Your task to perform on an android device: Check the news Image 0: 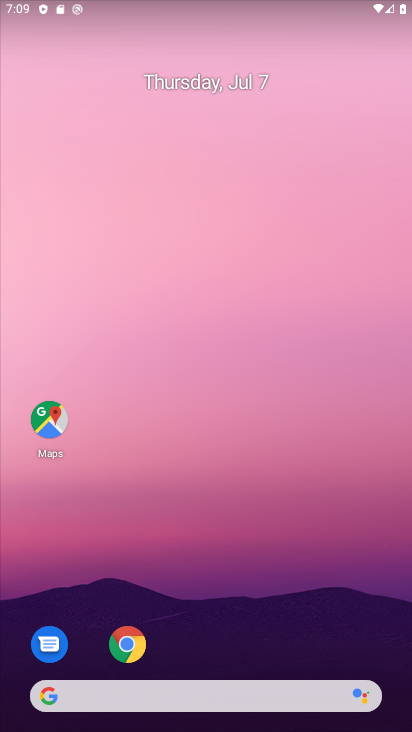
Step 0: drag from (270, 607) to (257, 382)
Your task to perform on an android device: Check the news Image 1: 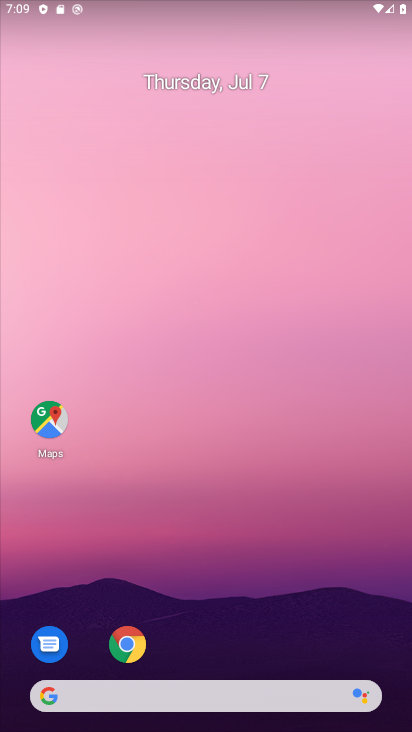
Step 1: drag from (281, 62) to (192, 73)
Your task to perform on an android device: Check the news Image 2: 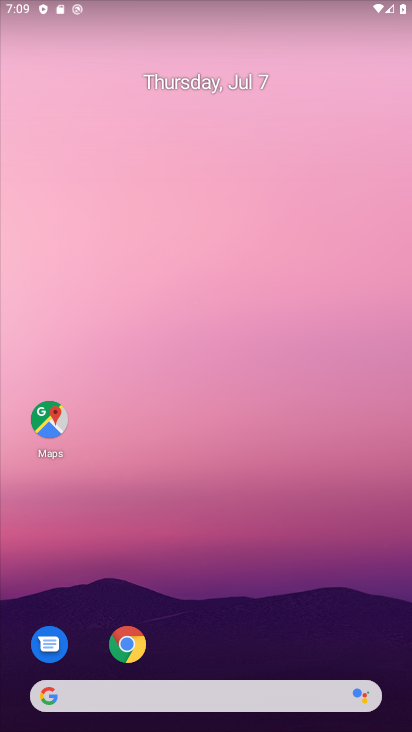
Step 2: drag from (228, 658) to (299, 140)
Your task to perform on an android device: Check the news Image 3: 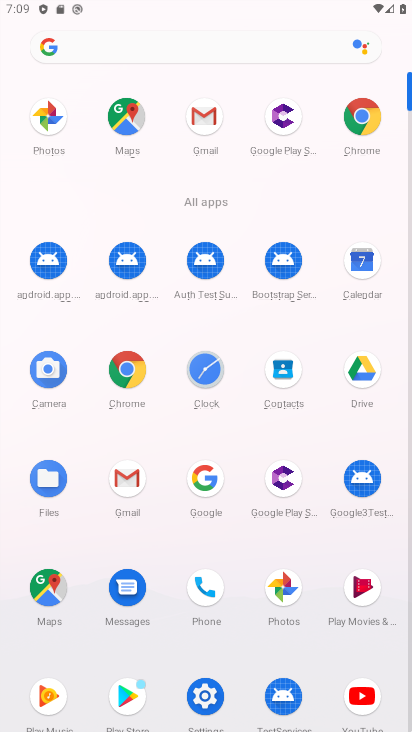
Step 3: click (214, 508)
Your task to perform on an android device: Check the news Image 4: 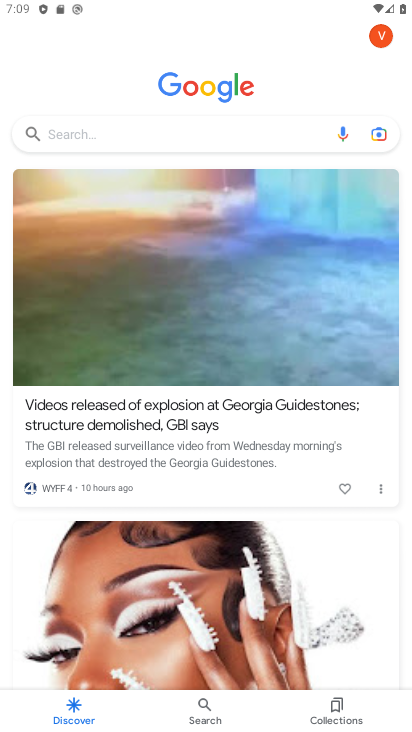
Step 4: click (250, 140)
Your task to perform on an android device: Check the news Image 5: 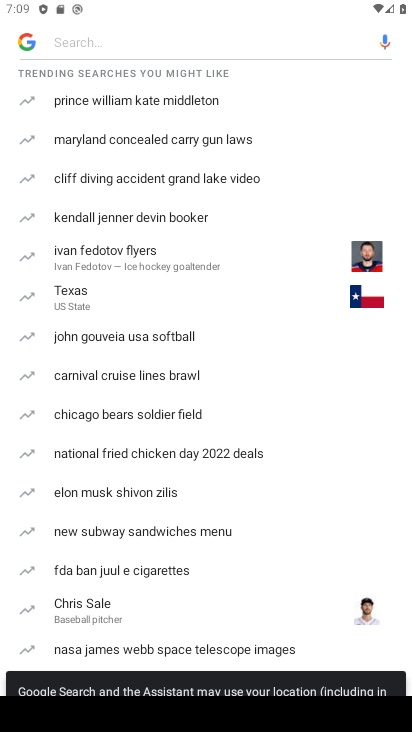
Step 5: type "news"
Your task to perform on an android device: Check the news Image 6: 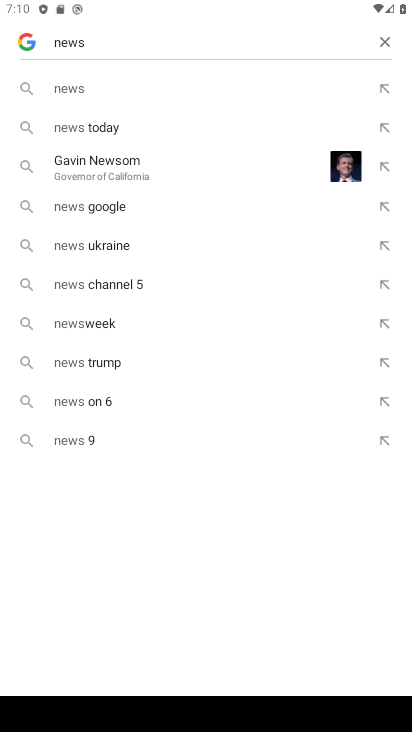
Step 6: click (171, 93)
Your task to perform on an android device: Check the news Image 7: 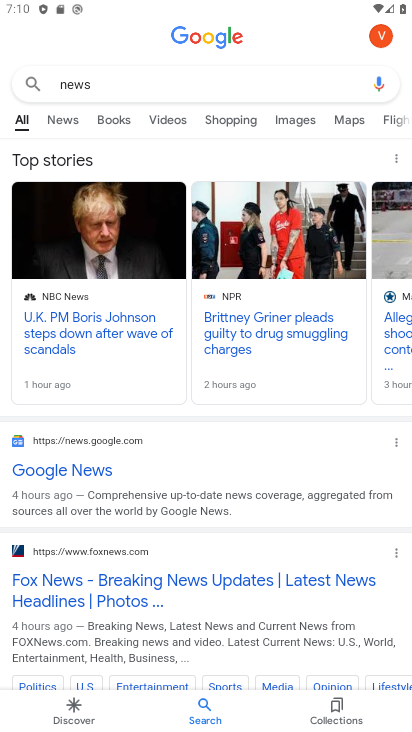
Step 7: task complete